Your task to perform on an android device: check battery use Image 0: 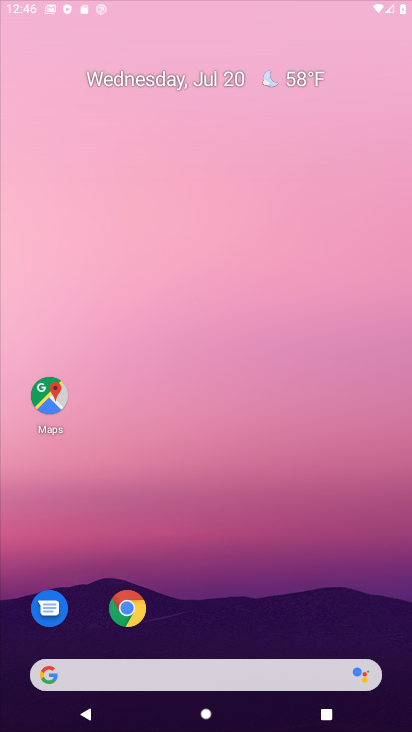
Step 0: drag from (25, 198) to (344, 205)
Your task to perform on an android device: check battery use Image 1: 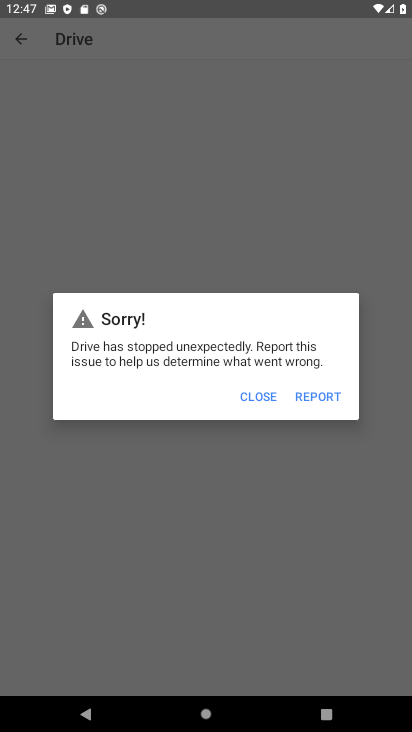
Step 1: press home button
Your task to perform on an android device: check battery use Image 2: 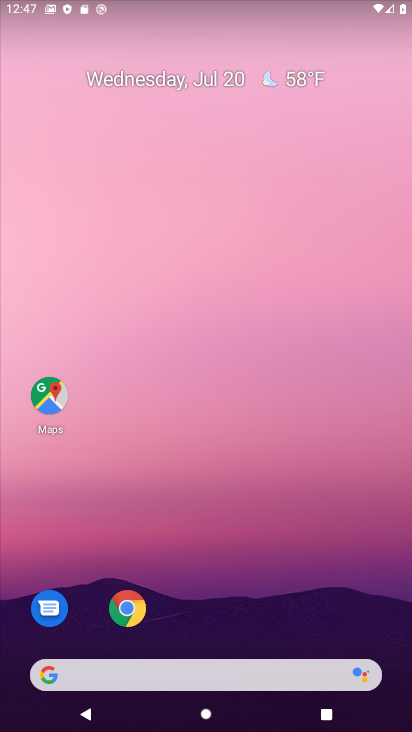
Step 2: drag from (247, 629) to (239, 225)
Your task to perform on an android device: check battery use Image 3: 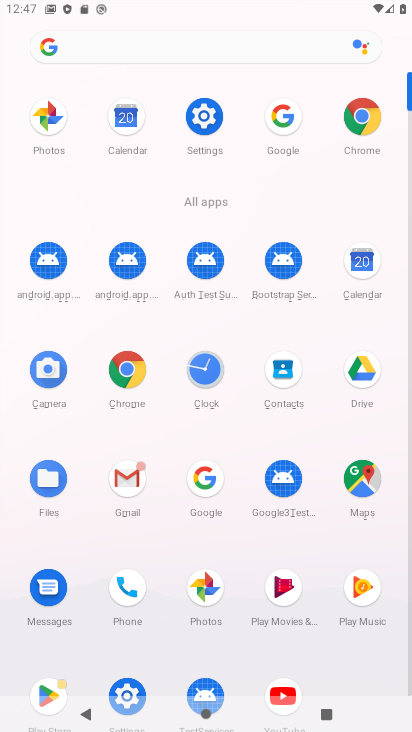
Step 3: click (204, 120)
Your task to perform on an android device: check battery use Image 4: 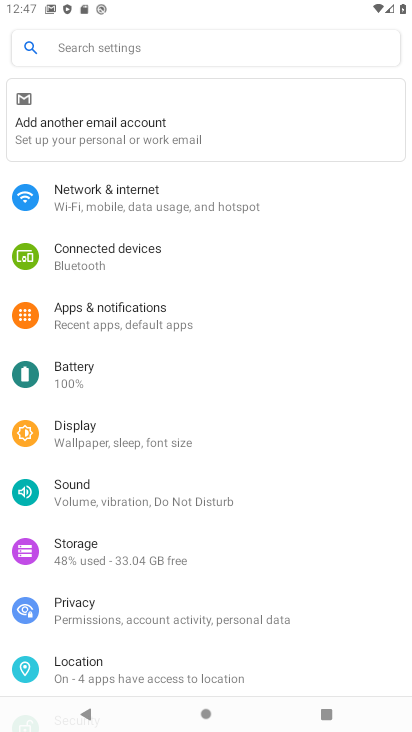
Step 4: click (66, 372)
Your task to perform on an android device: check battery use Image 5: 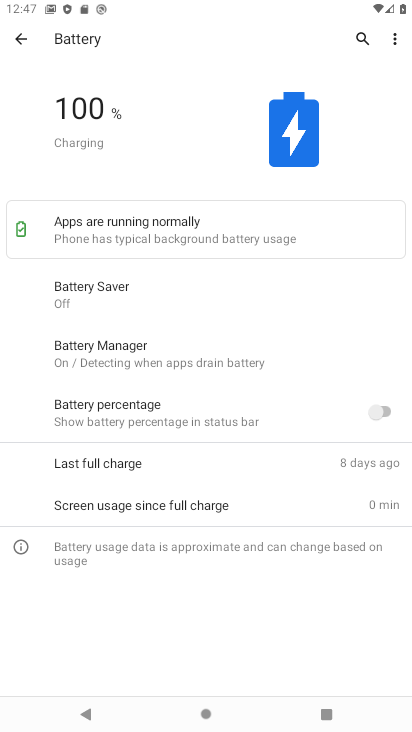
Step 5: click (395, 41)
Your task to perform on an android device: check battery use Image 6: 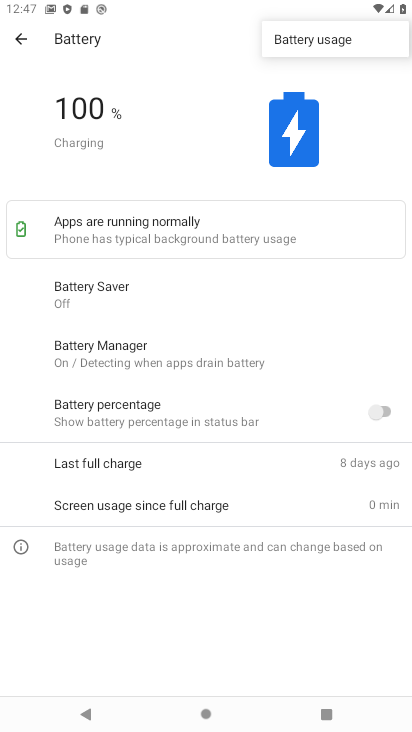
Step 6: click (332, 43)
Your task to perform on an android device: check battery use Image 7: 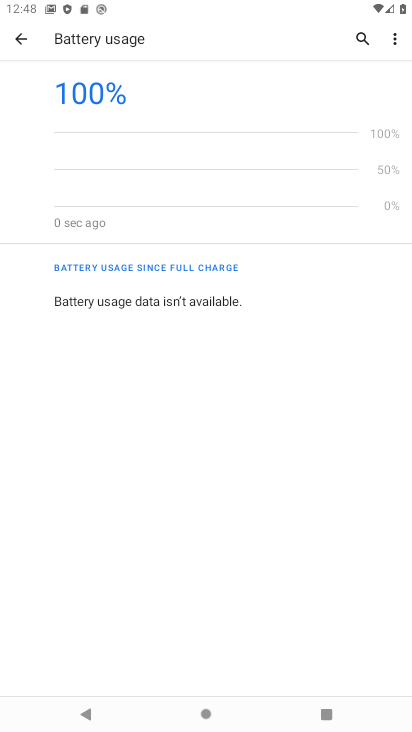
Step 7: task complete